Your task to perform on an android device: open chrome privacy settings Image 0: 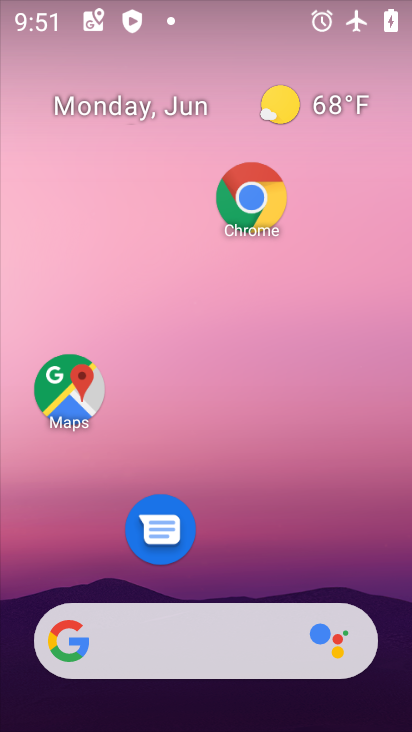
Step 0: click (262, 205)
Your task to perform on an android device: open chrome privacy settings Image 1: 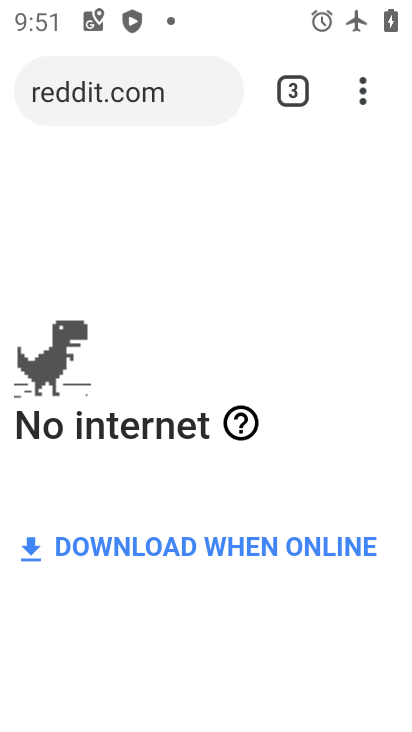
Step 1: drag from (365, 103) to (101, 572)
Your task to perform on an android device: open chrome privacy settings Image 2: 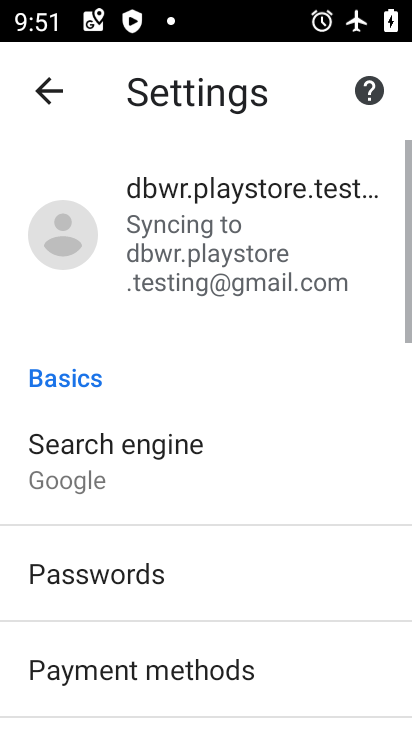
Step 2: drag from (200, 644) to (243, 314)
Your task to perform on an android device: open chrome privacy settings Image 3: 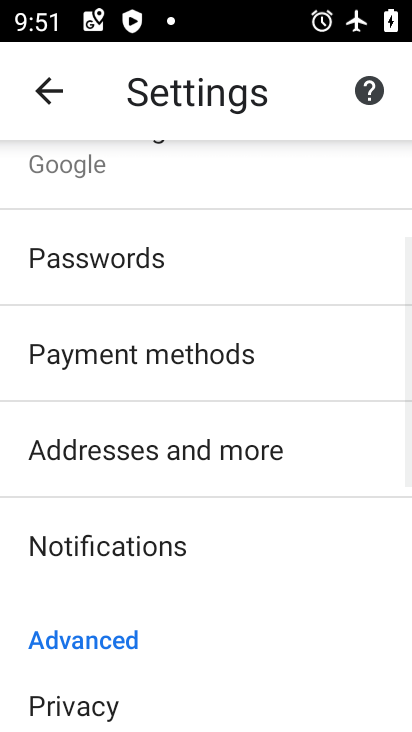
Step 3: drag from (208, 637) to (218, 370)
Your task to perform on an android device: open chrome privacy settings Image 4: 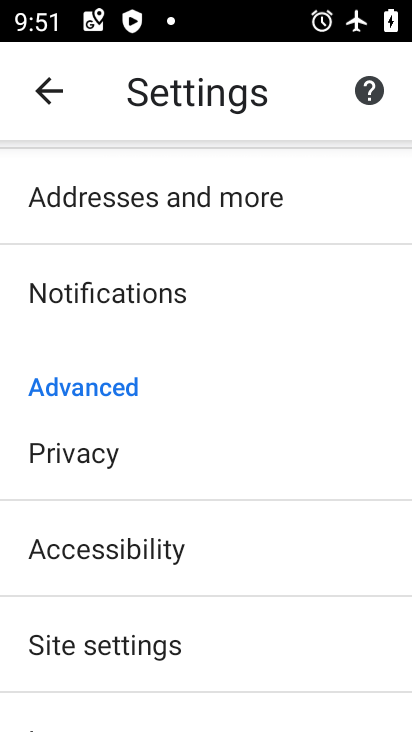
Step 4: click (102, 471)
Your task to perform on an android device: open chrome privacy settings Image 5: 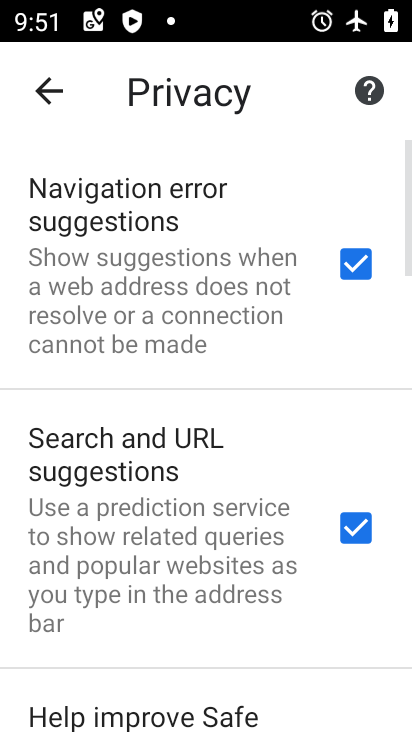
Step 5: task complete